Your task to perform on an android device: Open display settings Image 0: 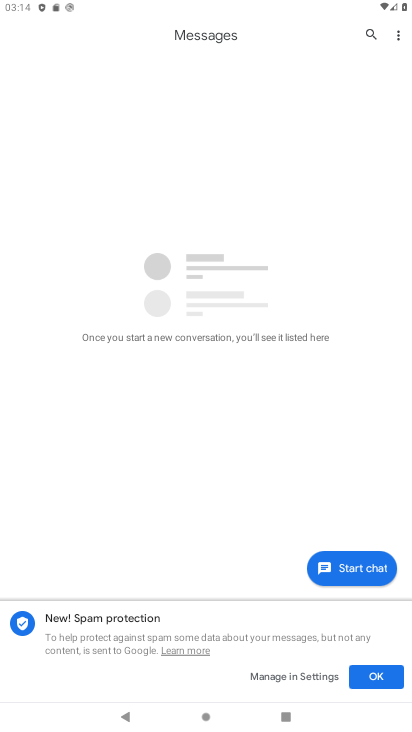
Step 0: press home button
Your task to perform on an android device: Open display settings Image 1: 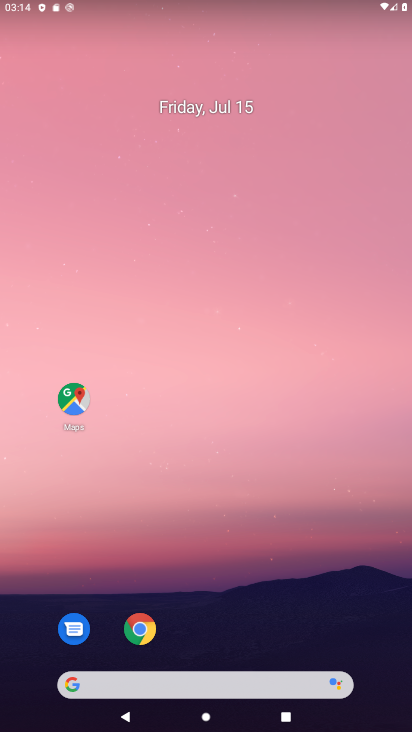
Step 1: drag from (355, 566) to (311, 98)
Your task to perform on an android device: Open display settings Image 2: 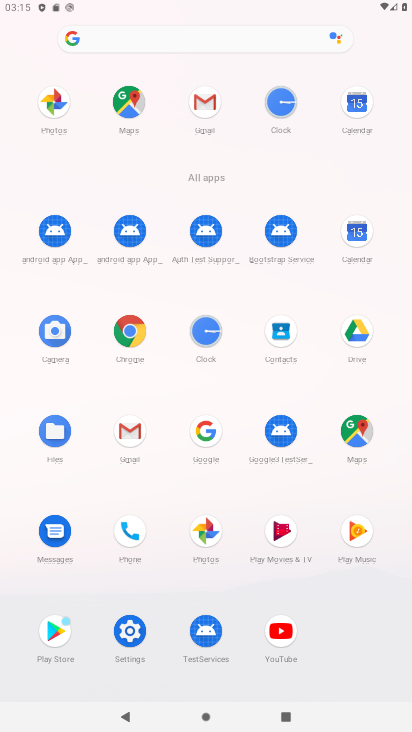
Step 2: click (130, 633)
Your task to perform on an android device: Open display settings Image 3: 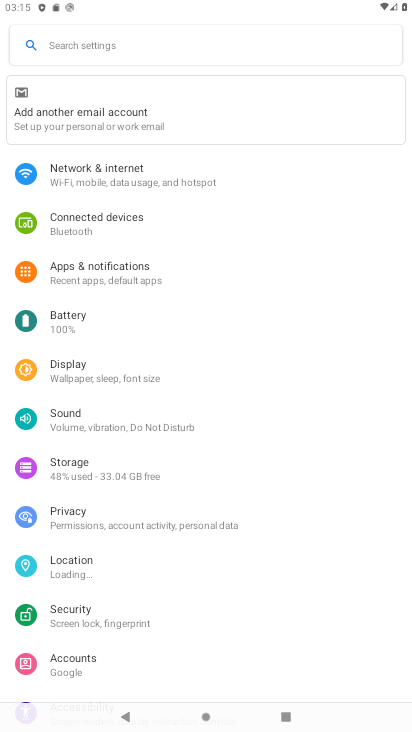
Step 3: click (67, 369)
Your task to perform on an android device: Open display settings Image 4: 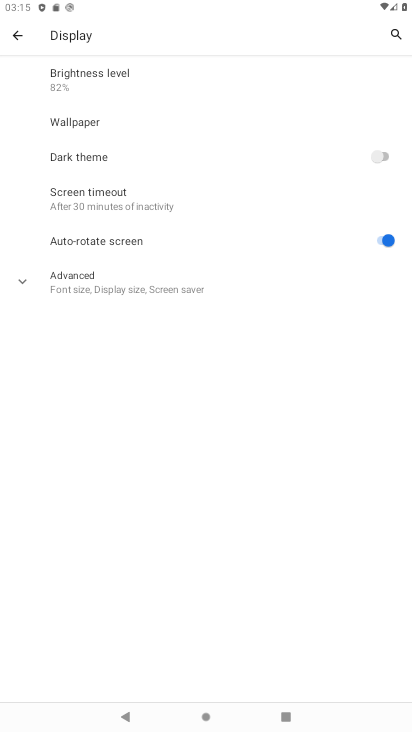
Step 4: click (25, 280)
Your task to perform on an android device: Open display settings Image 5: 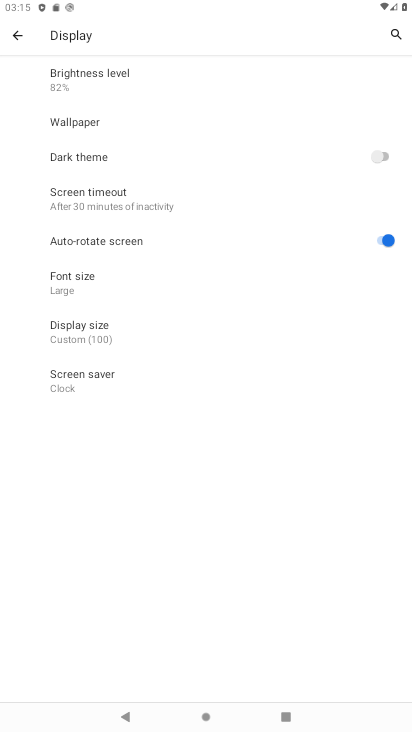
Step 5: click (77, 200)
Your task to perform on an android device: Open display settings Image 6: 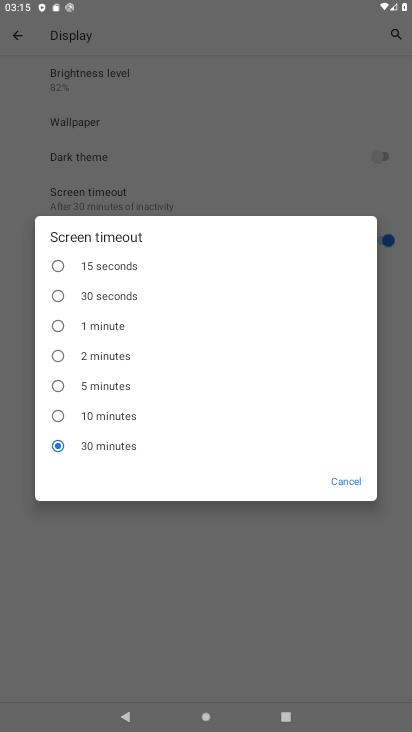
Step 6: click (22, 182)
Your task to perform on an android device: Open display settings Image 7: 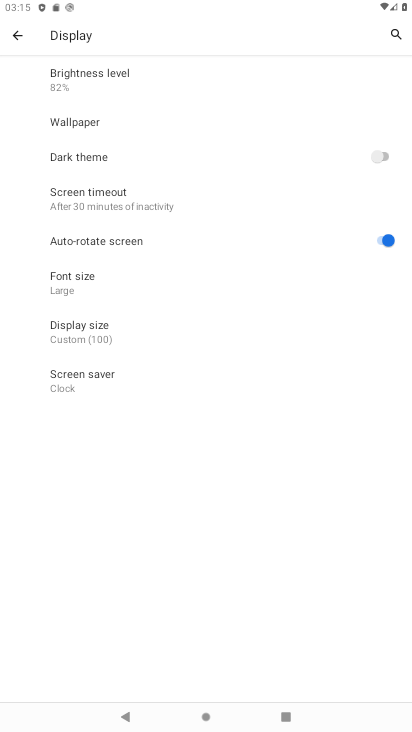
Step 7: task complete